Your task to perform on an android device: turn notification dots on Image 0: 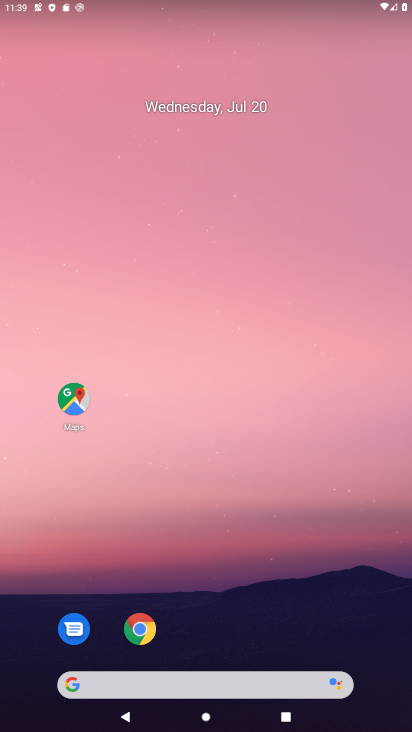
Step 0: drag from (222, 601) to (247, 214)
Your task to perform on an android device: turn notification dots on Image 1: 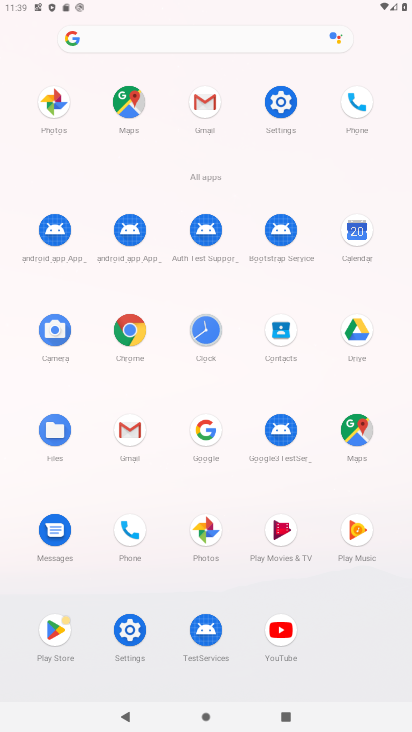
Step 1: click (281, 101)
Your task to perform on an android device: turn notification dots on Image 2: 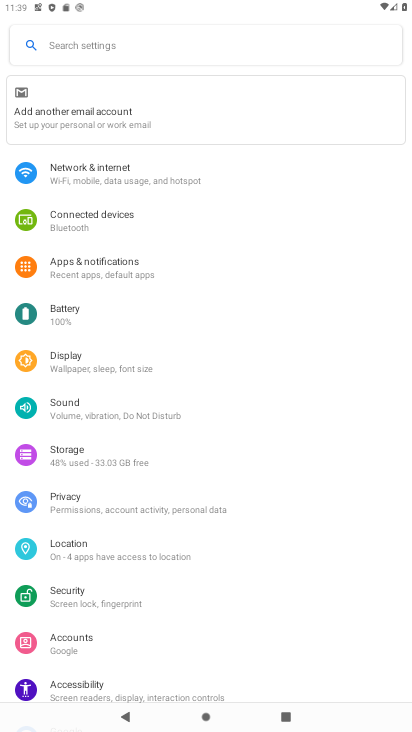
Step 2: click (142, 38)
Your task to perform on an android device: turn notification dots on Image 3: 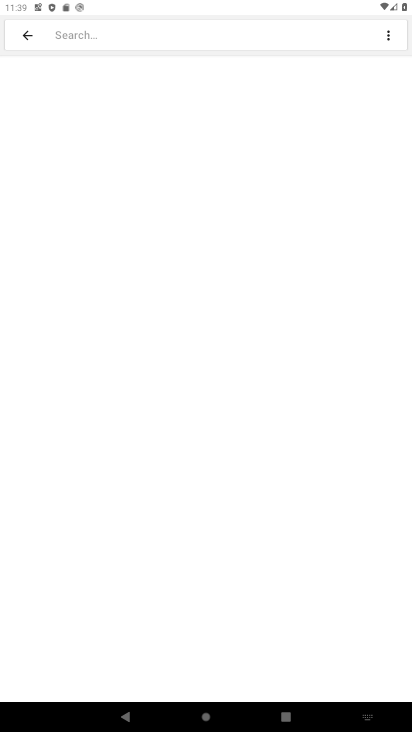
Step 3: click (233, 25)
Your task to perform on an android device: turn notification dots on Image 4: 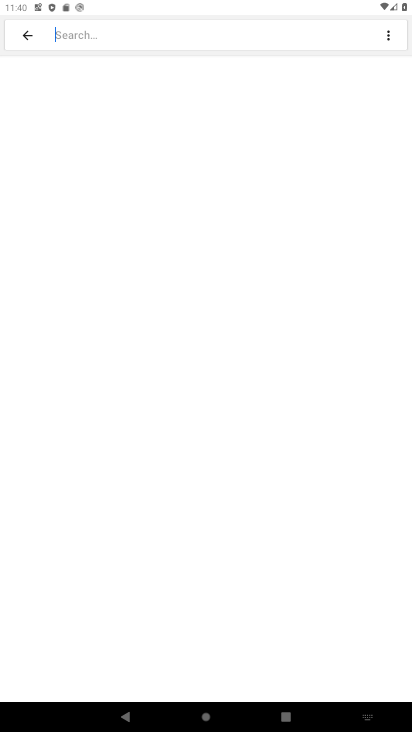
Step 4: click (285, 31)
Your task to perform on an android device: turn notification dots on Image 5: 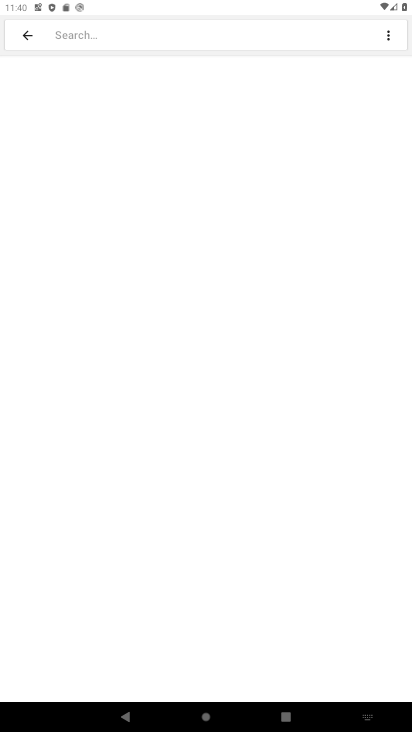
Step 5: type "notification dot "
Your task to perform on an android device: turn notification dots on Image 6: 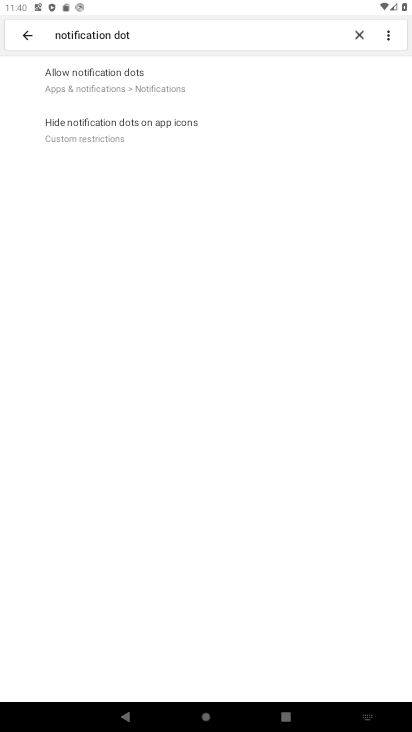
Step 6: click (170, 68)
Your task to perform on an android device: turn notification dots on Image 7: 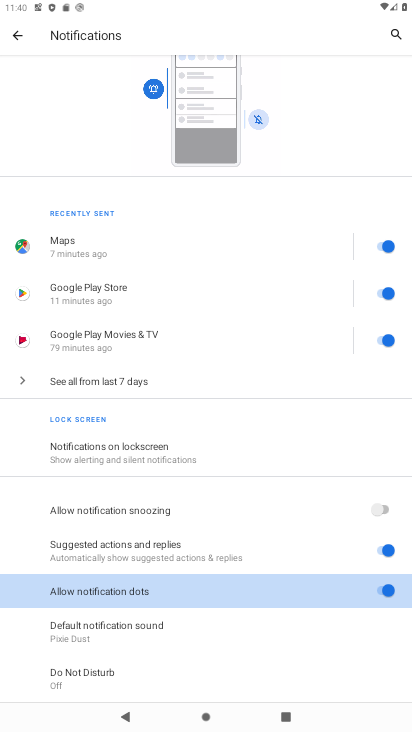
Step 7: task complete